Your task to perform on an android device: toggle notification dots Image 0: 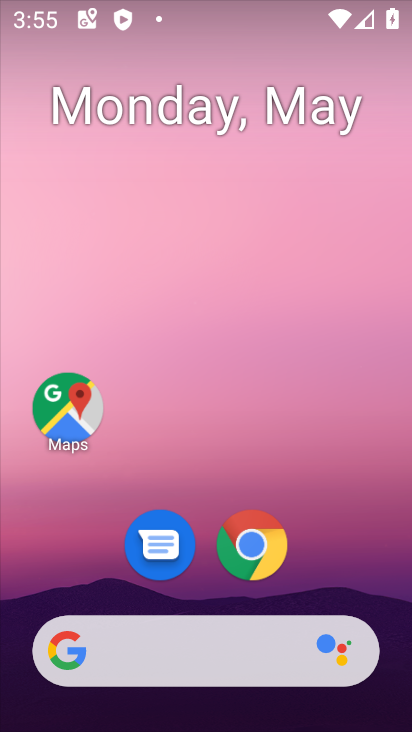
Step 0: drag from (193, 594) to (255, 39)
Your task to perform on an android device: toggle notification dots Image 1: 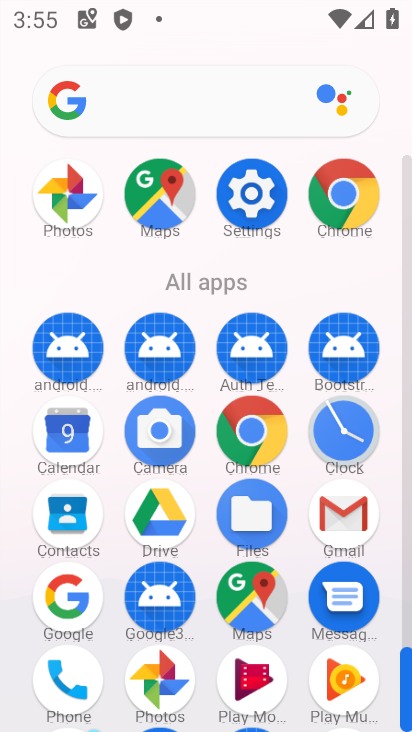
Step 1: click (252, 196)
Your task to perform on an android device: toggle notification dots Image 2: 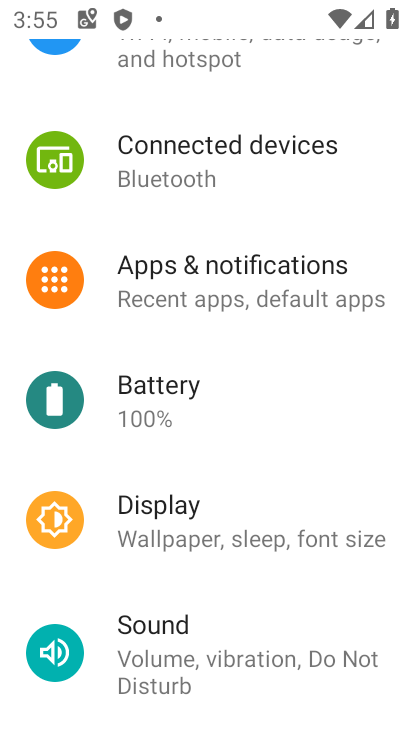
Step 2: drag from (230, 574) to (210, 504)
Your task to perform on an android device: toggle notification dots Image 3: 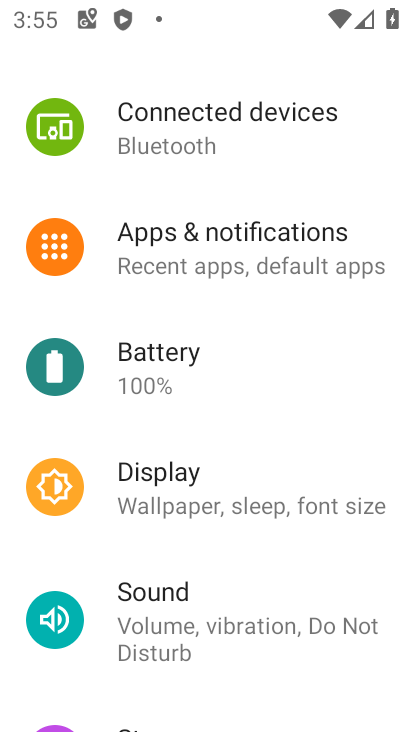
Step 3: click (175, 248)
Your task to perform on an android device: toggle notification dots Image 4: 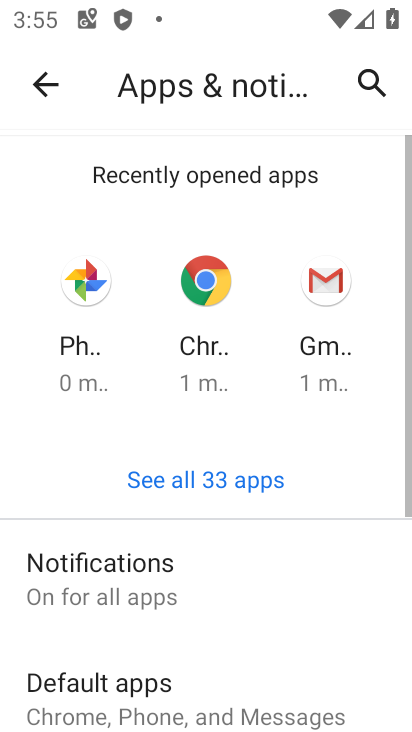
Step 4: drag from (223, 594) to (211, 325)
Your task to perform on an android device: toggle notification dots Image 5: 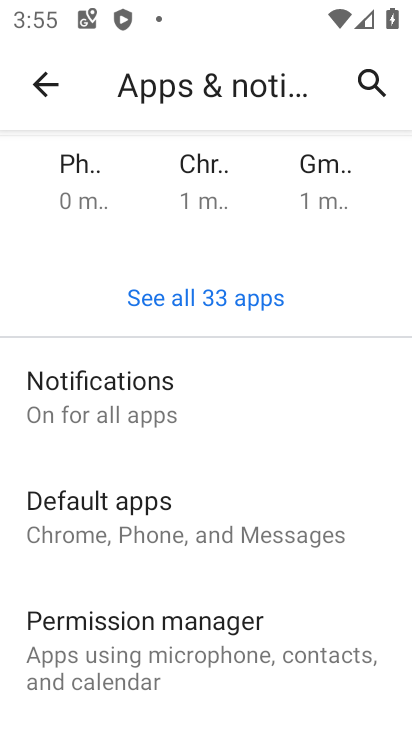
Step 5: click (179, 410)
Your task to perform on an android device: toggle notification dots Image 6: 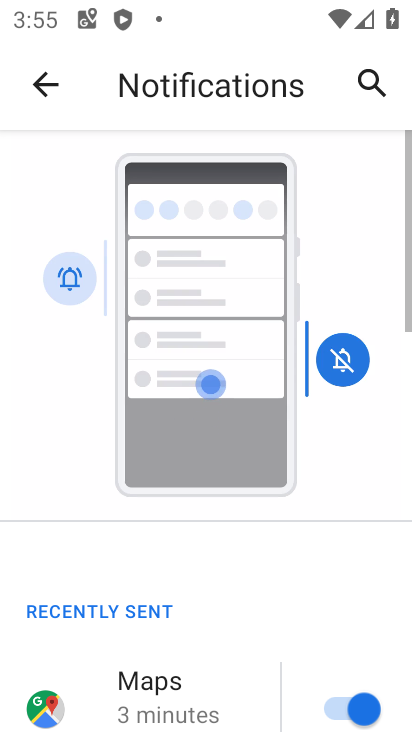
Step 6: drag from (230, 582) to (259, 17)
Your task to perform on an android device: toggle notification dots Image 7: 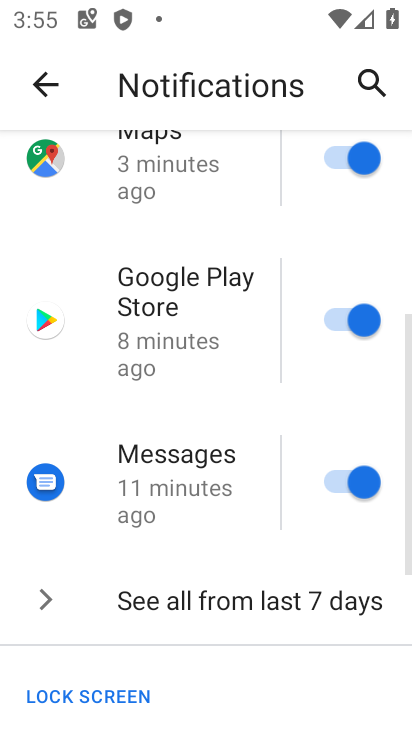
Step 7: drag from (189, 612) to (244, 44)
Your task to perform on an android device: toggle notification dots Image 8: 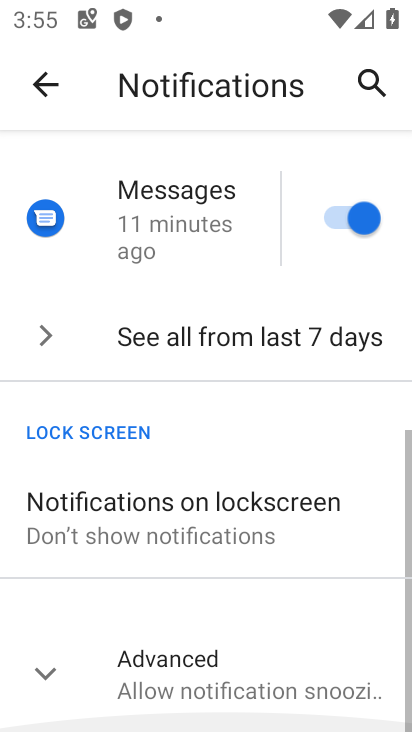
Step 8: click (167, 695)
Your task to perform on an android device: toggle notification dots Image 9: 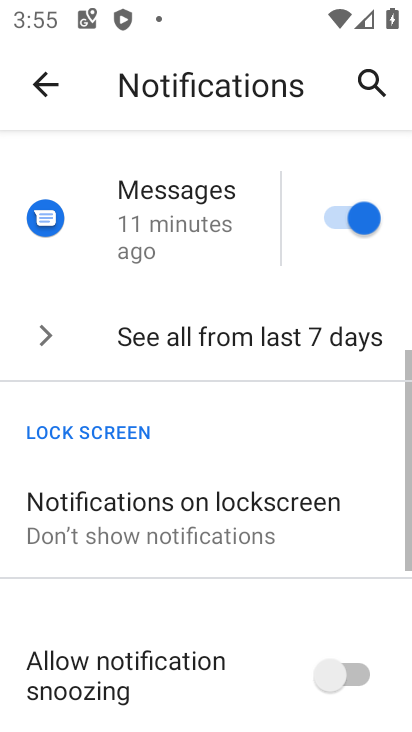
Step 9: drag from (234, 625) to (263, 224)
Your task to perform on an android device: toggle notification dots Image 10: 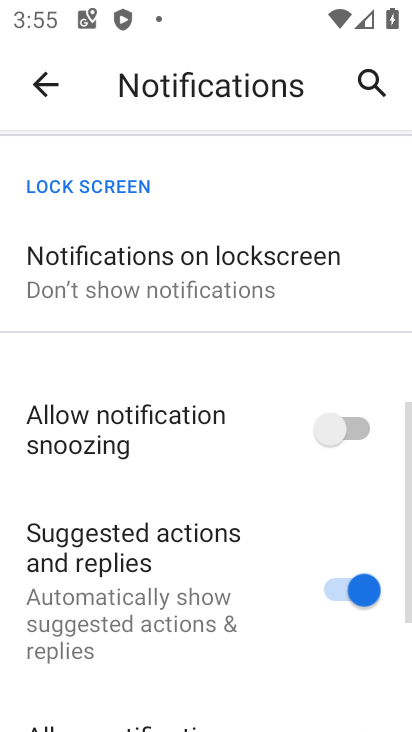
Step 10: drag from (223, 629) to (253, 221)
Your task to perform on an android device: toggle notification dots Image 11: 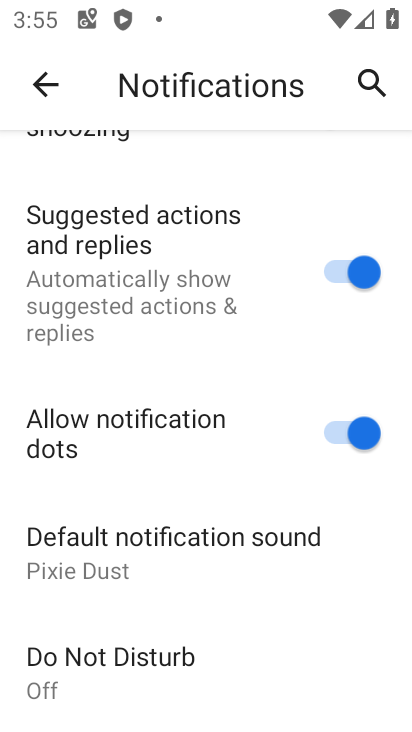
Step 11: drag from (240, 654) to (254, 314)
Your task to perform on an android device: toggle notification dots Image 12: 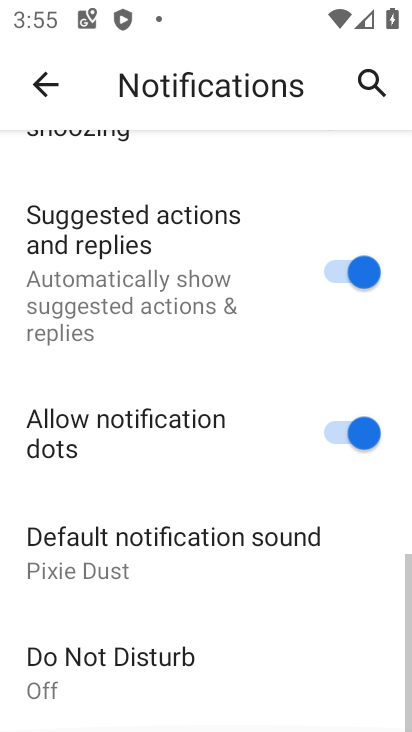
Step 12: click (342, 425)
Your task to perform on an android device: toggle notification dots Image 13: 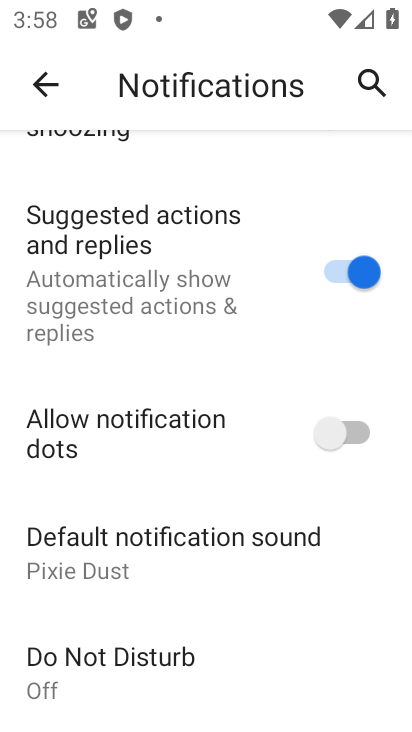
Step 13: task complete